Your task to perform on an android device: open app "ColorNote Notepad Notes" (install if not already installed) Image 0: 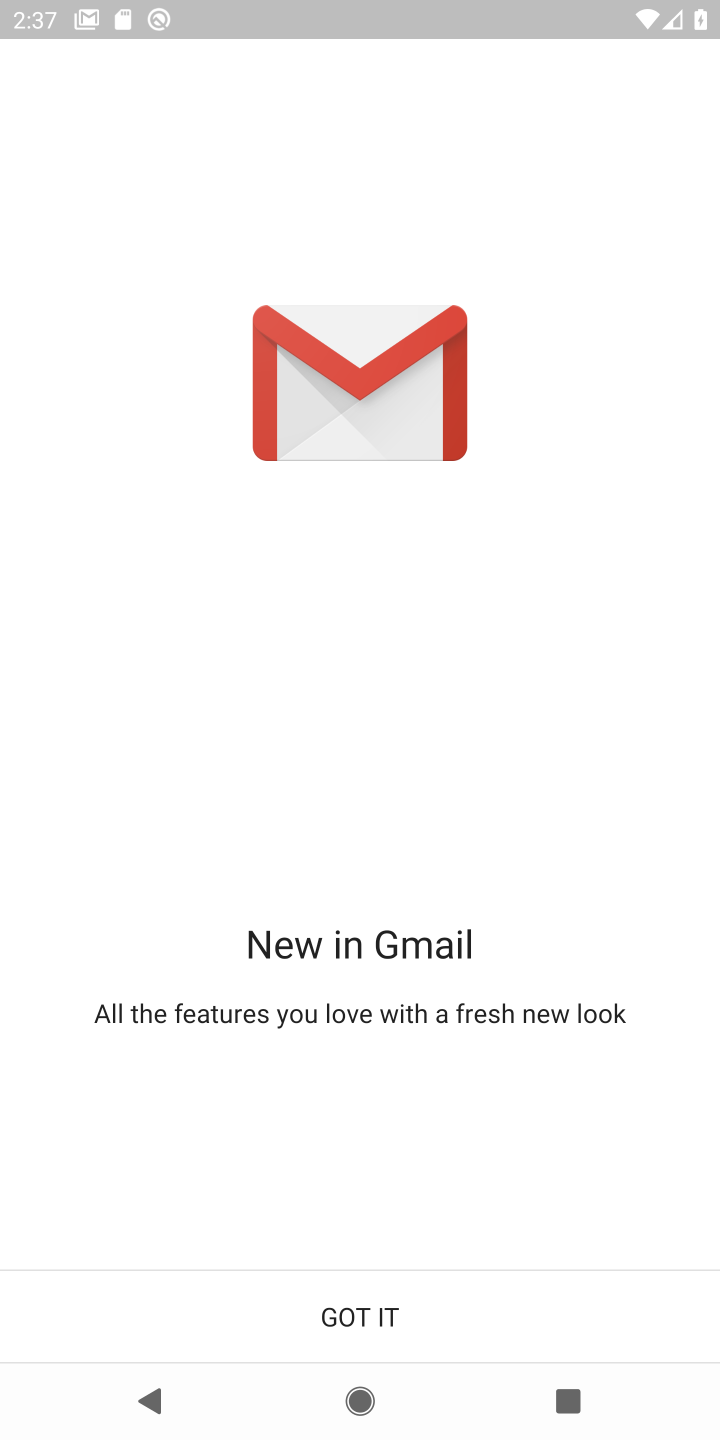
Step 0: press home button
Your task to perform on an android device: open app "ColorNote Notepad Notes" (install if not already installed) Image 1: 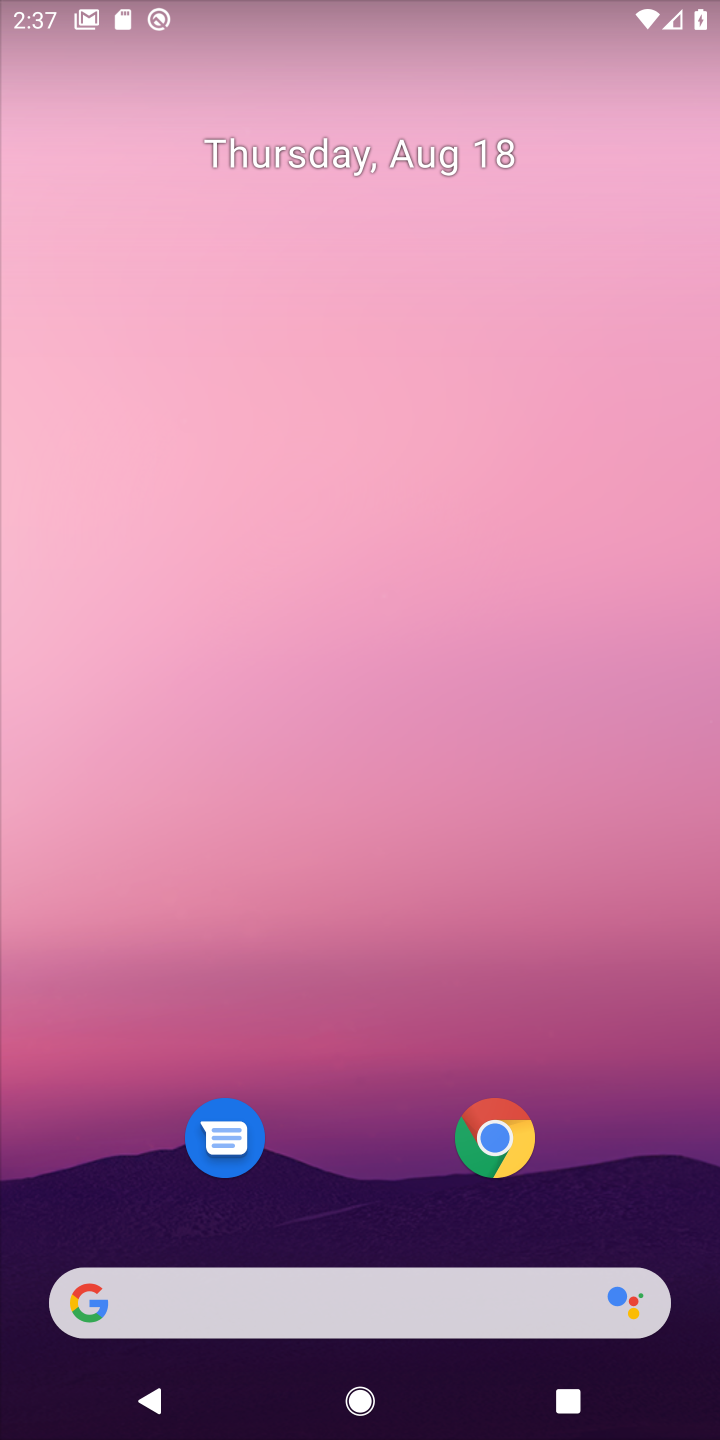
Step 1: drag from (396, 577) to (584, 2)
Your task to perform on an android device: open app "ColorNote Notepad Notes" (install if not already installed) Image 2: 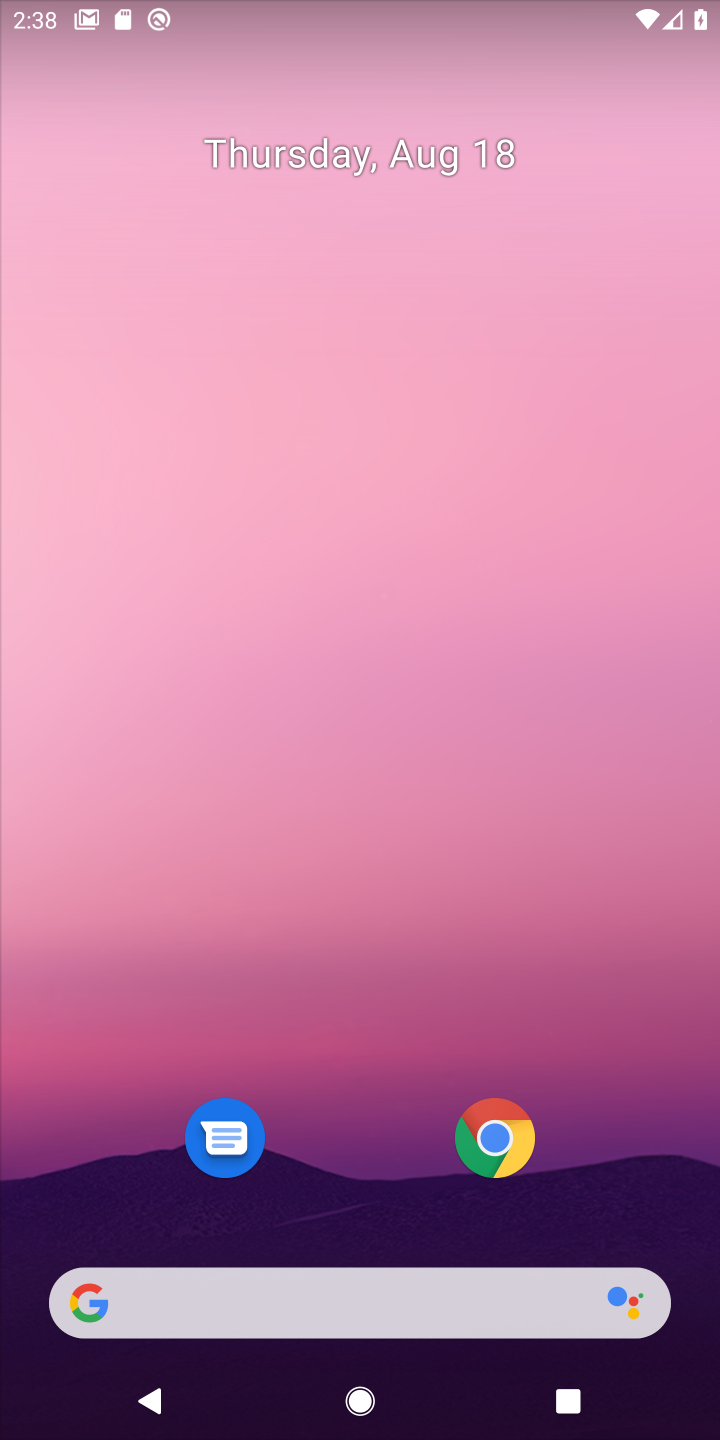
Step 2: drag from (454, 1292) to (334, 632)
Your task to perform on an android device: open app "ColorNote Notepad Notes" (install if not already installed) Image 3: 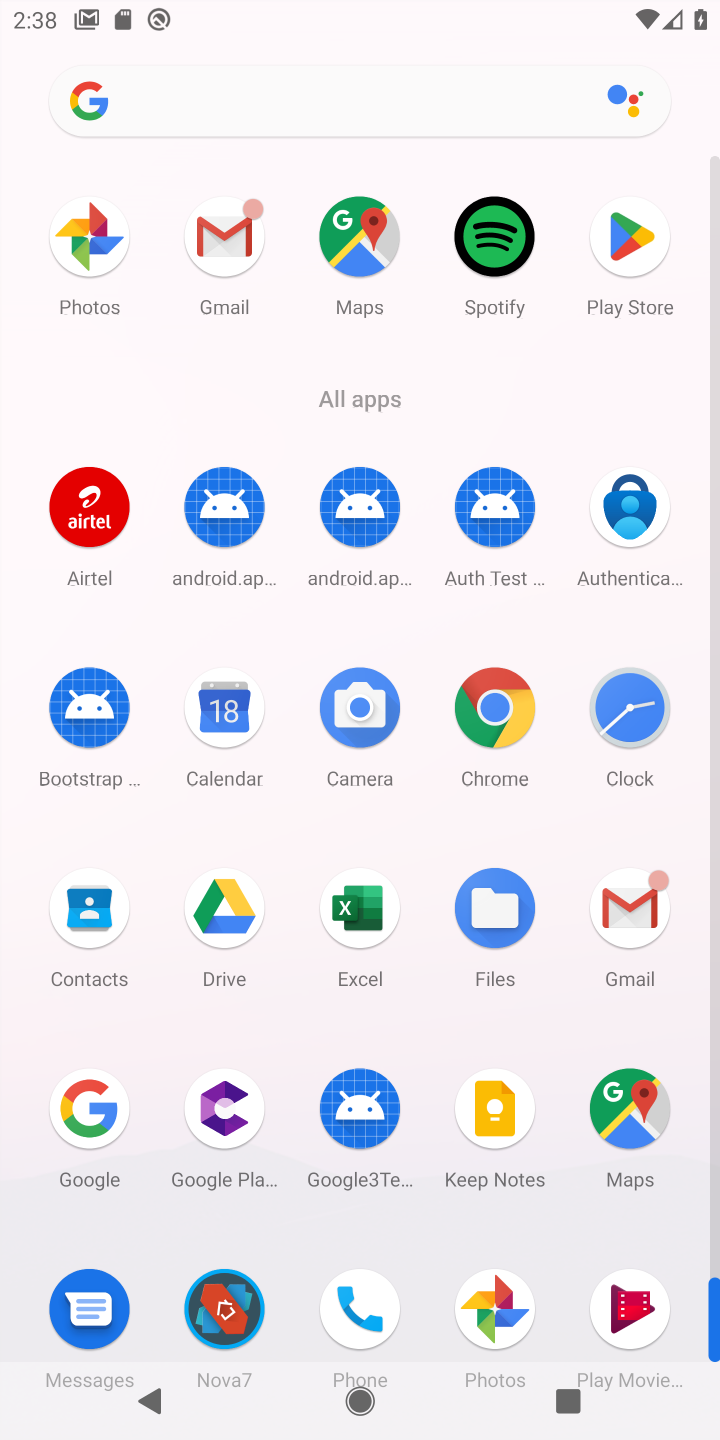
Step 3: click (652, 244)
Your task to perform on an android device: open app "ColorNote Notepad Notes" (install if not already installed) Image 4: 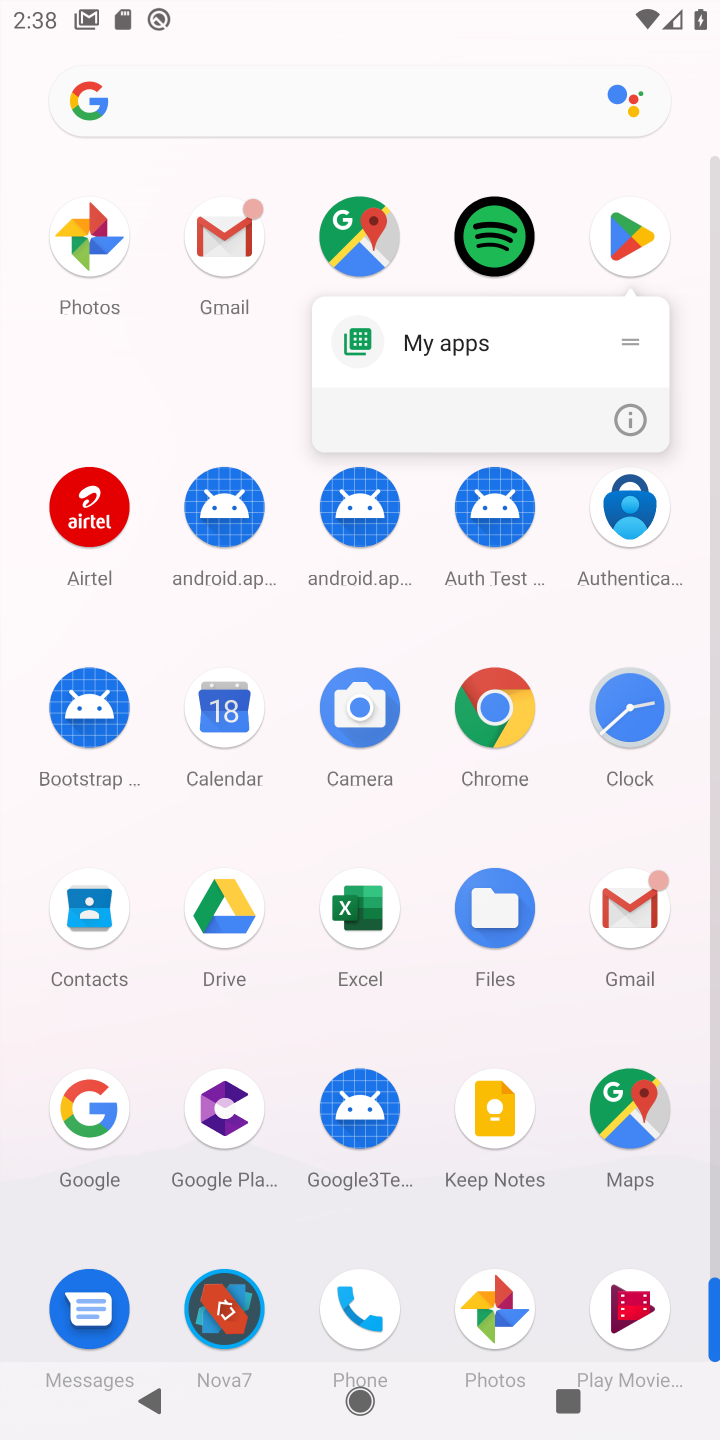
Step 4: click (620, 251)
Your task to perform on an android device: open app "ColorNote Notepad Notes" (install if not already installed) Image 5: 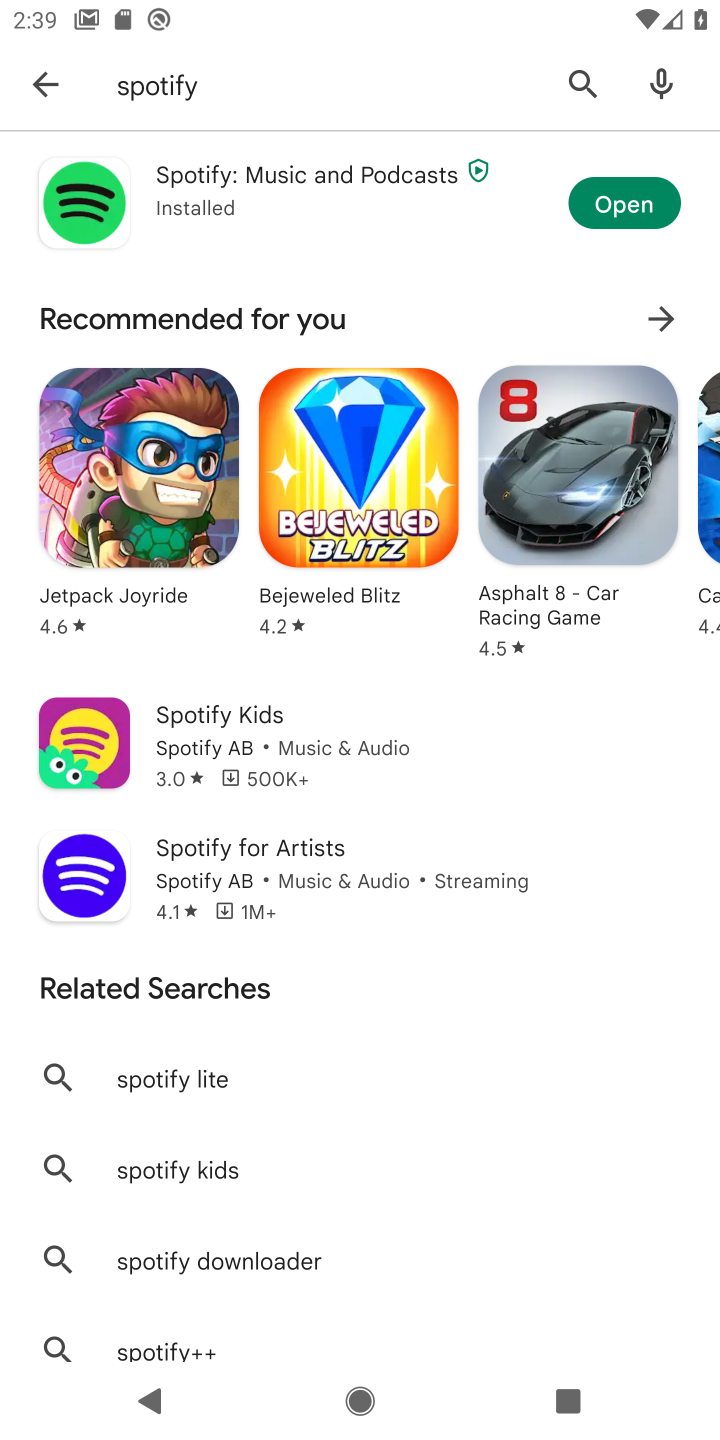
Step 5: click (38, 97)
Your task to perform on an android device: open app "ColorNote Notepad Notes" (install if not already installed) Image 6: 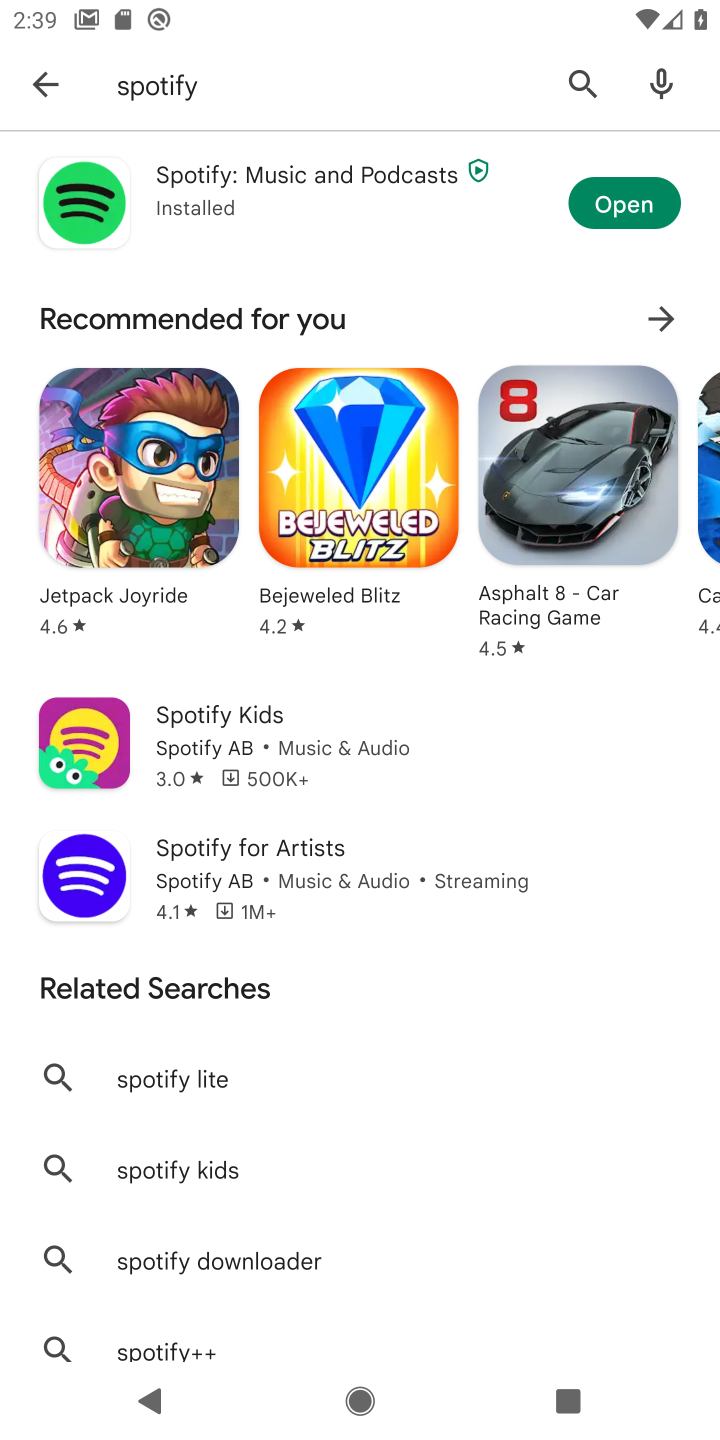
Step 6: press back button
Your task to perform on an android device: open app "ColorNote Notepad Notes" (install if not already installed) Image 7: 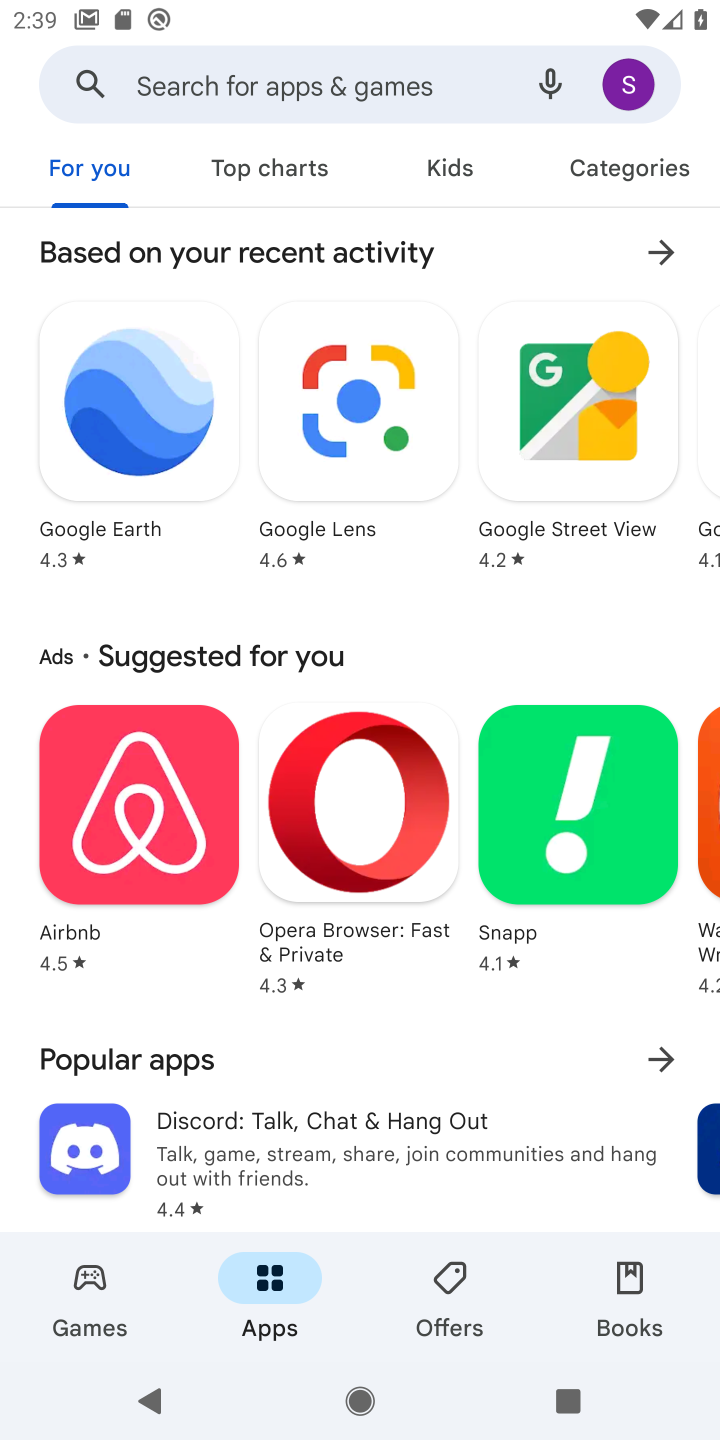
Step 7: click (204, 84)
Your task to perform on an android device: open app "ColorNote Notepad Notes" (install if not already installed) Image 8: 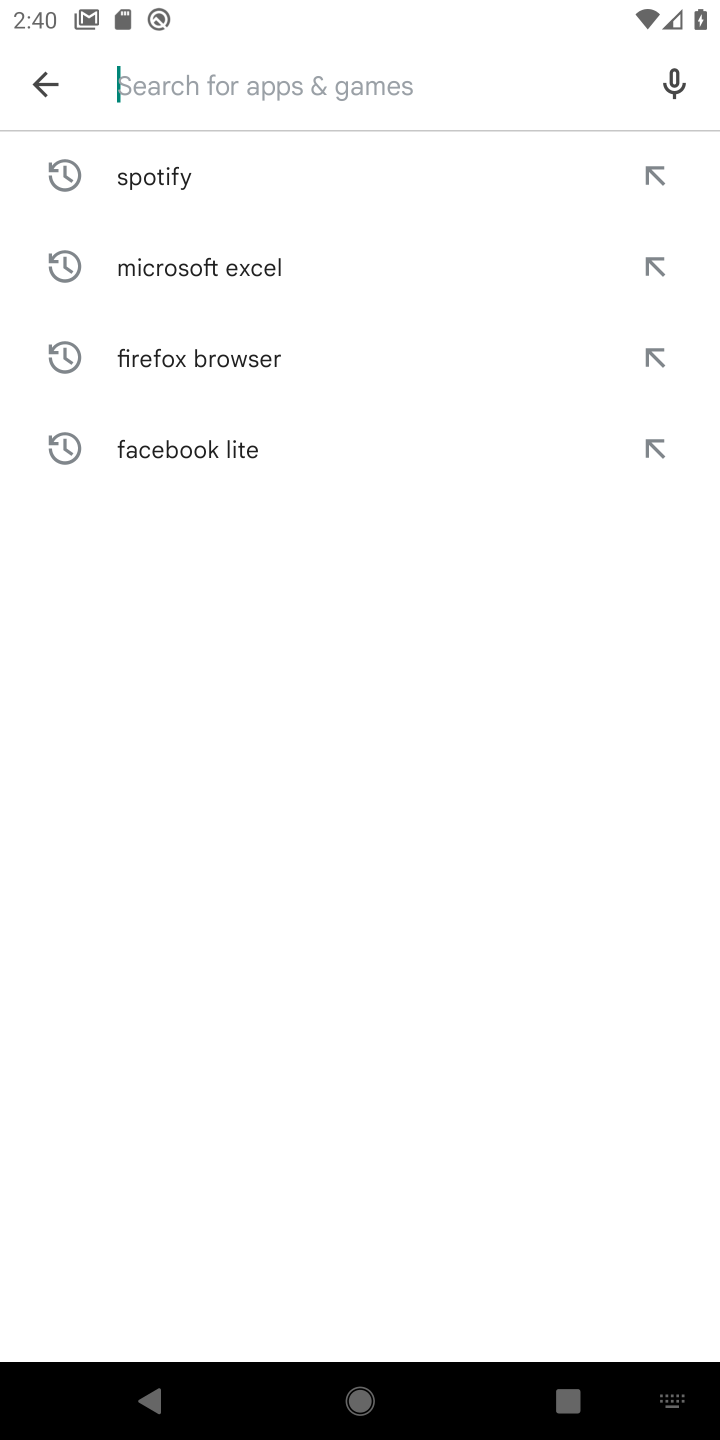
Step 8: type "ColorNote Notepad Notes"
Your task to perform on an android device: open app "ColorNote Notepad Notes" (install if not already installed) Image 9: 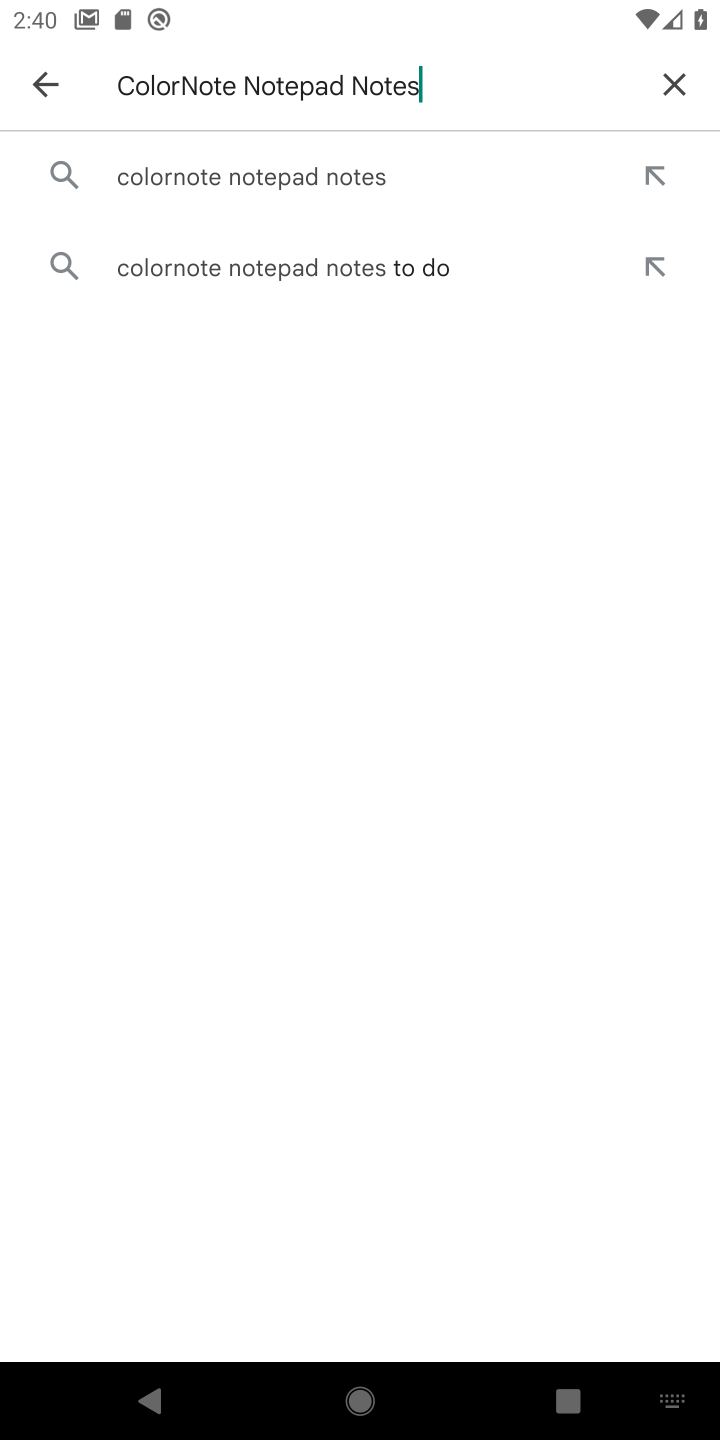
Step 9: click (354, 163)
Your task to perform on an android device: open app "ColorNote Notepad Notes" (install if not already installed) Image 10: 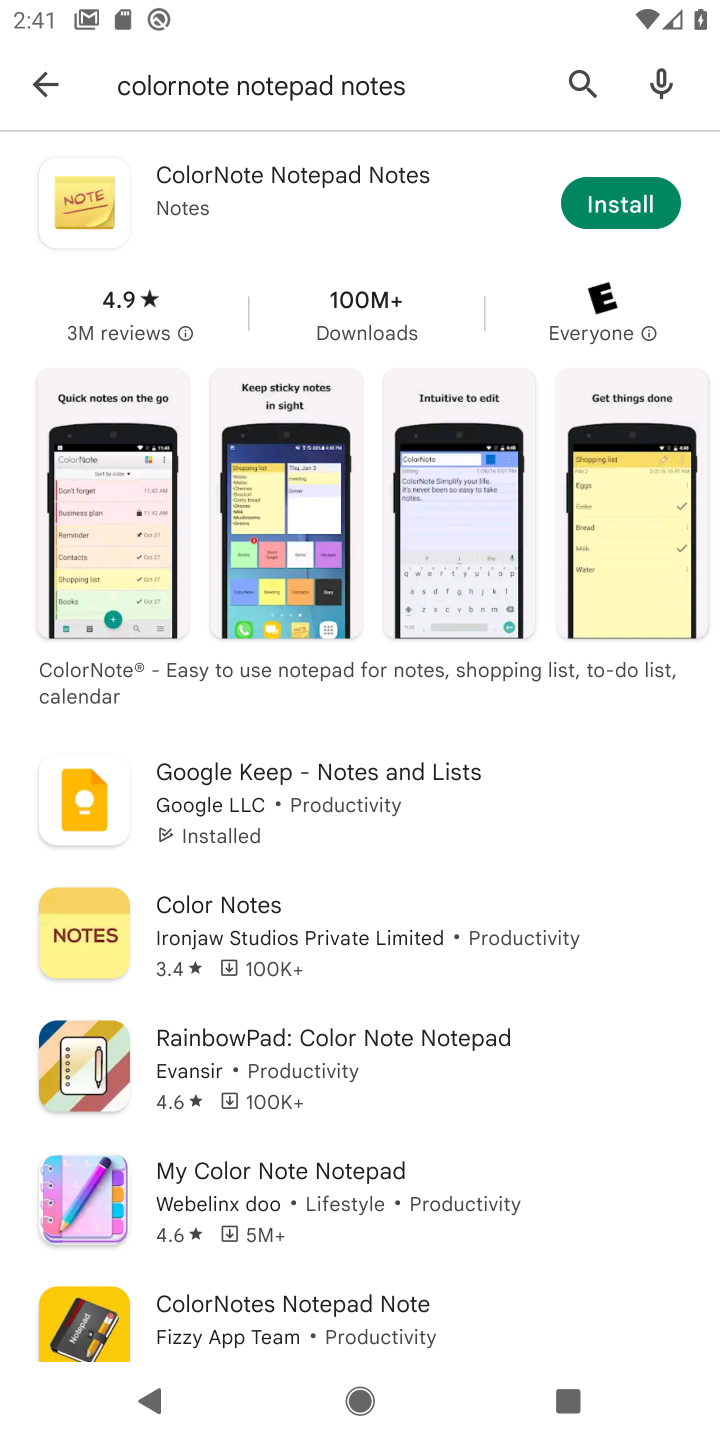
Step 10: click (621, 218)
Your task to perform on an android device: open app "ColorNote Notepad Notes" (install if not already installed) Image 11: 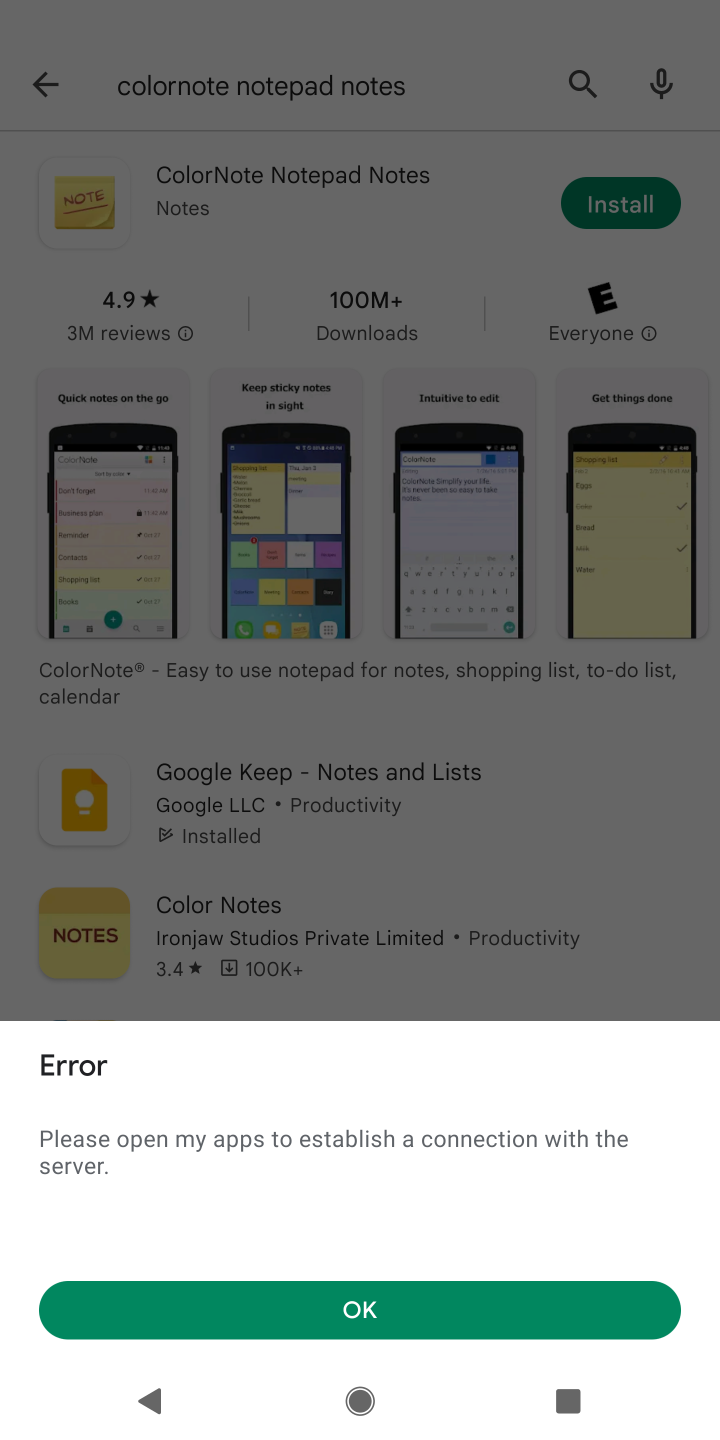
Step 11: click (421, 1317)
Your task to perform on an android device: open app "ColorNote Notepad Notes" (install if not already installed) Image 12: 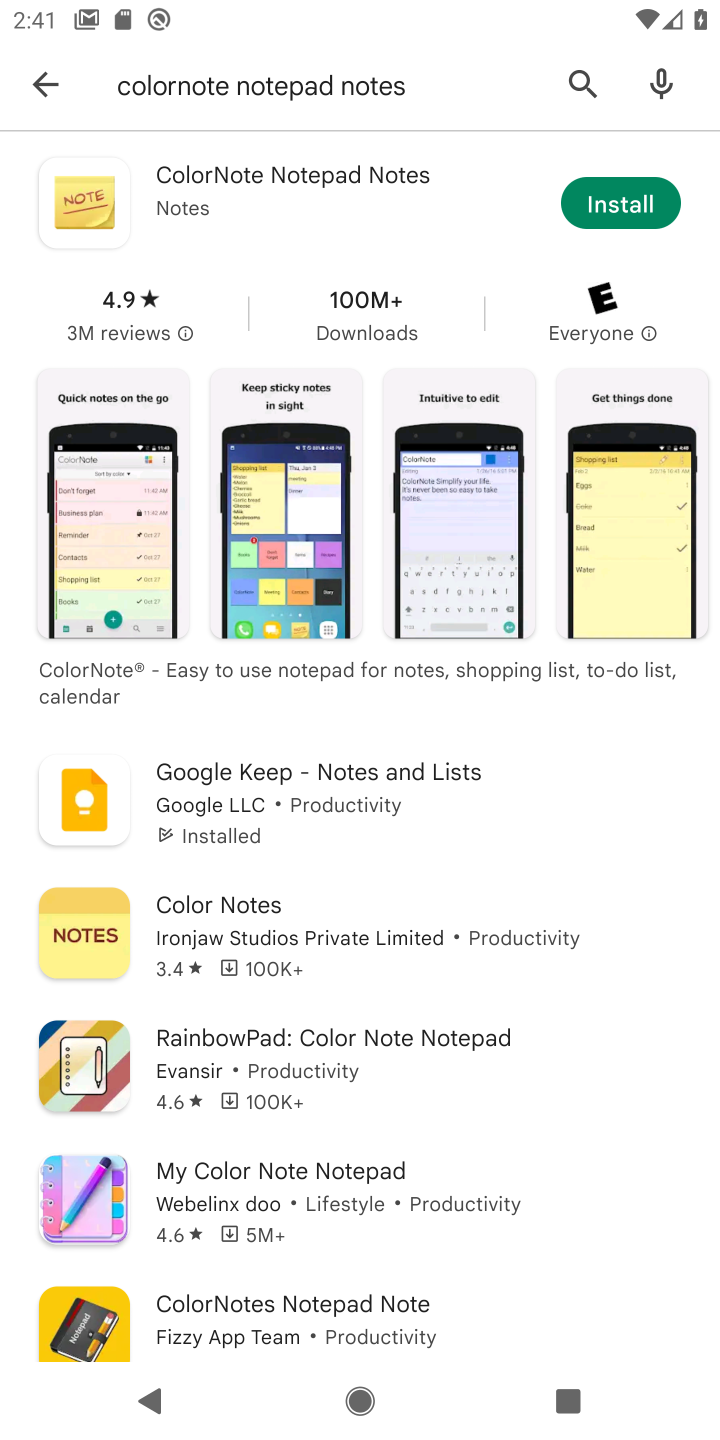
Step 12: click (635, 214)
Your task to perform on an android device: open app "ColorNote Notepad Notes" (install if not already installed) Image 13: 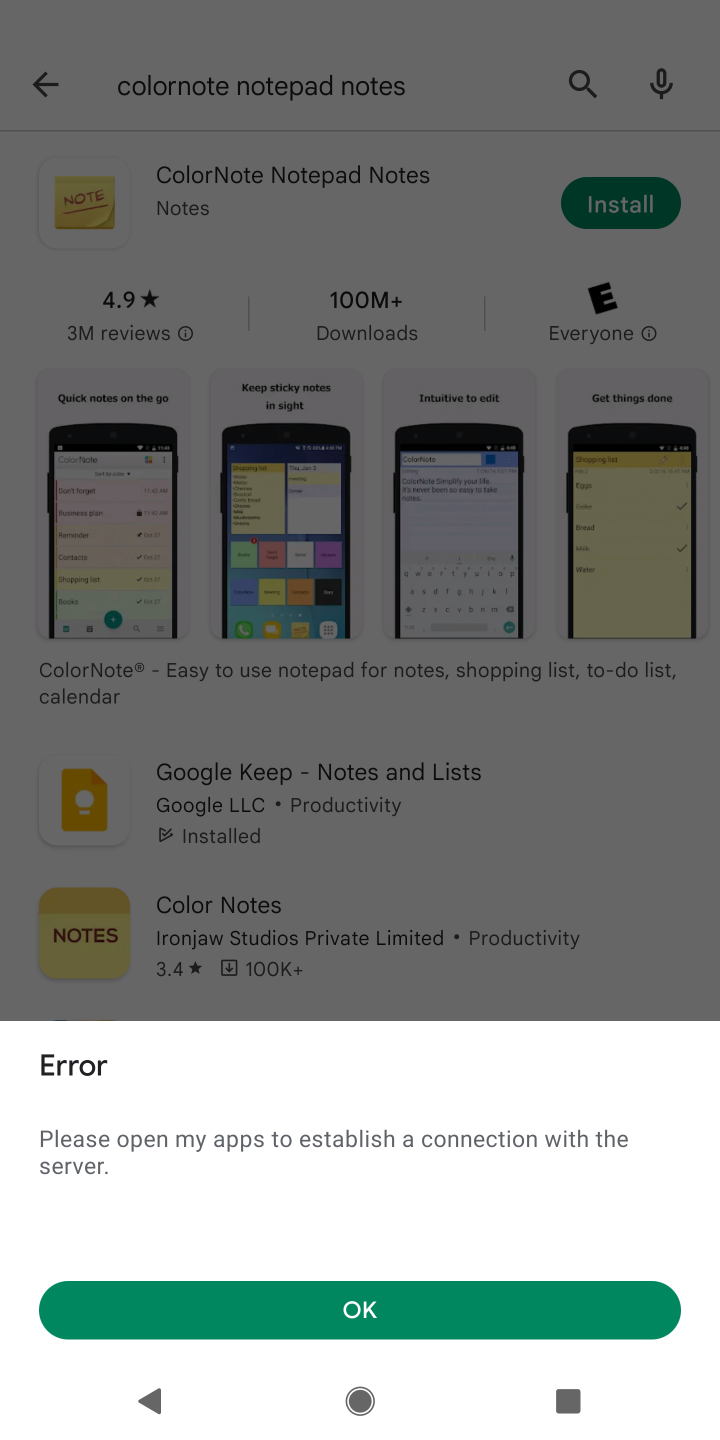
Step 13: task complete